Your task to perform on an android device: Clear the shopping cart on newegg.com. Add "usb-c" to the cart on newegg.com Image 0: 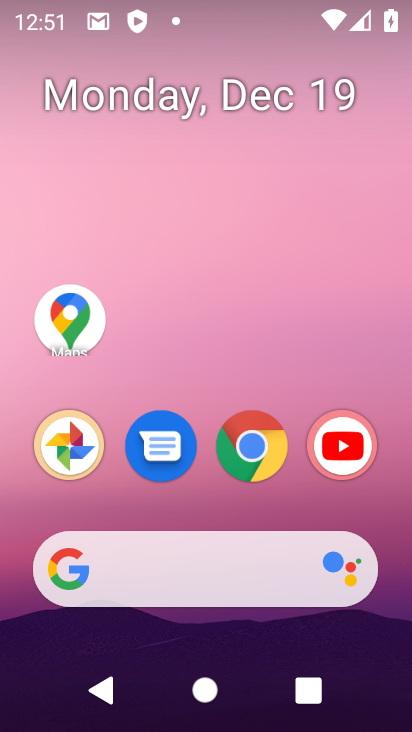
Step 0: click (240, 441)
Your task to perform on an android device: Clear the shopping cart on newegg.com. Add "usb-c" to the cart on newegg.com Image 1: 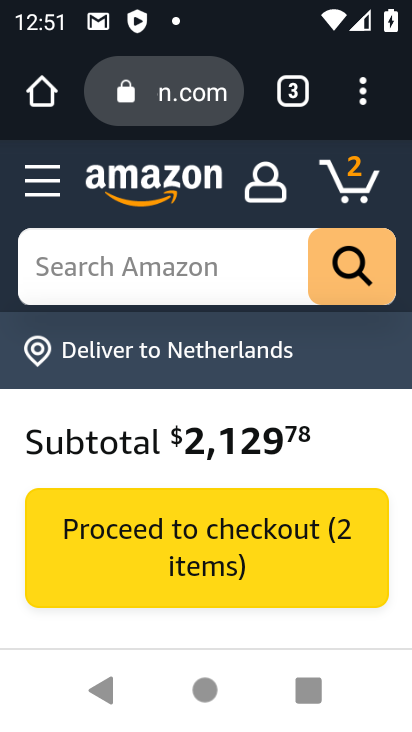
Step 1: click (182, 100)
Your task to perform on an android device: Clear the shopping cart on newegg.com. Add "usb-c" to the cart on newegg.com Image 2: 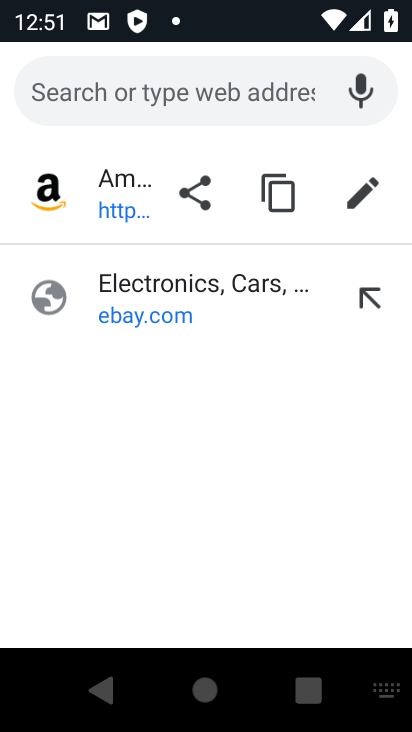
Step 2: type "newegg"
Your task to perform on an android device: Clear the shopping cart on newegg.com. Add "usb-c" to the cart on newegg.com Image 3: 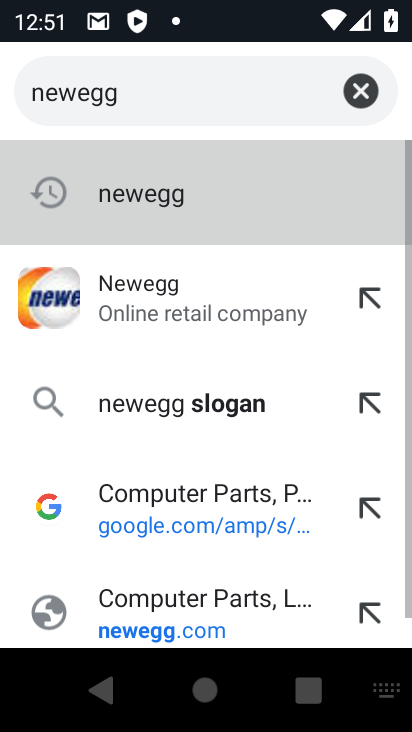
Step 3: click (102, 169)
Your task to perform on an android device: Clear the shopping cart on newegg.com. Add "usb-c" to the cart on newegg.com Image 4: 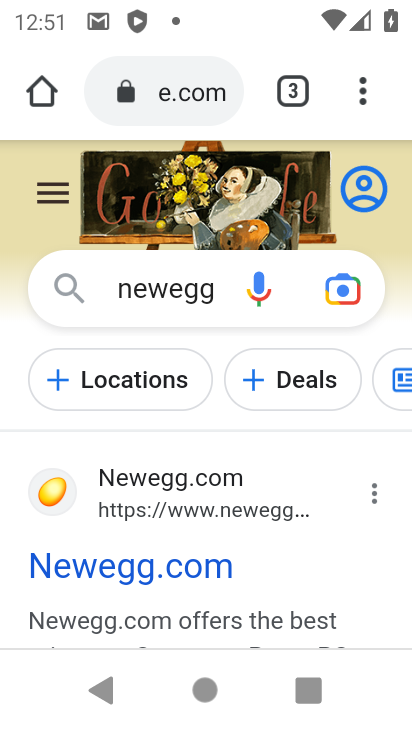
Step 4: click (167, 549)
Your task to perform on an android device: Clear the shopping cart on newegg.com. Add "usb-c" to the cart on newegg.com Image 5: 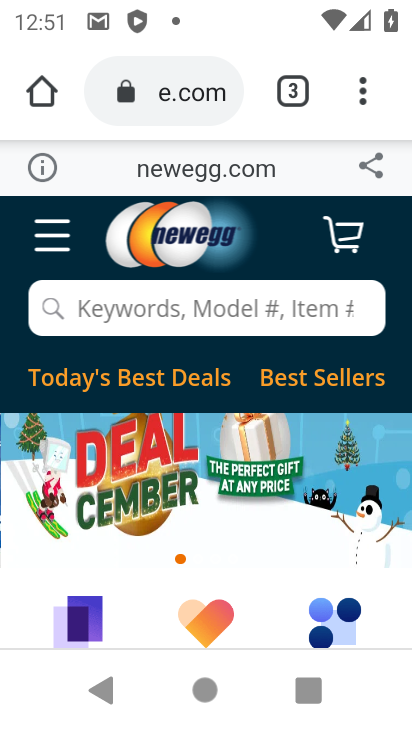
Step 5: click (205, 307)
Your task to perform on an android device: Clear the shopping cart on newegg.com. Add "usb-c" to the cart on newegg.com Image 6: 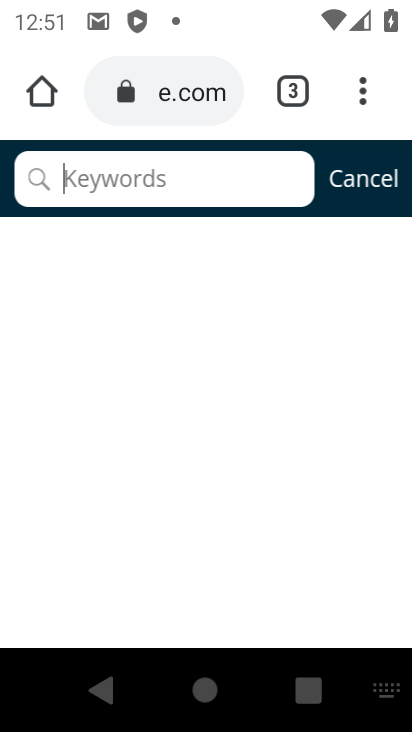
Step 6: type "usb-c"
Your task to perform on an android device: Clear the shopping cart on newegg.com. Add "usb-c" to the cart on newegg.com Image 7: 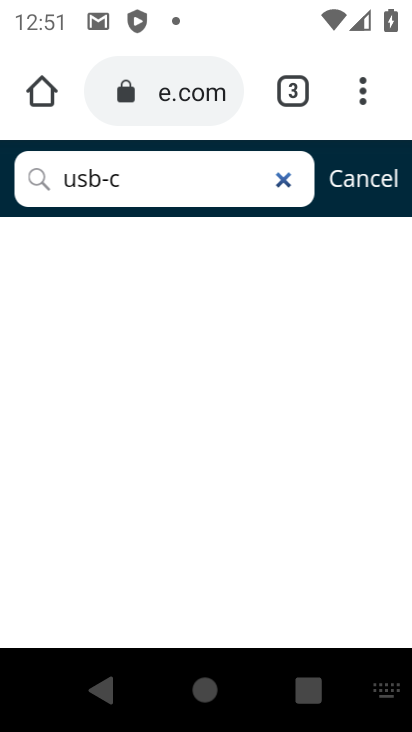
Step 7: task complete